Your task to perform on an android device: Search for pizza restaurants on Maps Image 0: 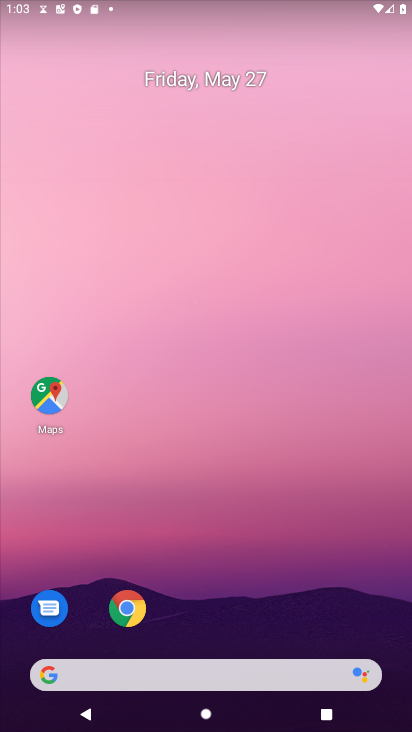
Step 0: click (44, 376)
Your task to perform on an android device: Search for pizza restaurants on Maps Image 1: 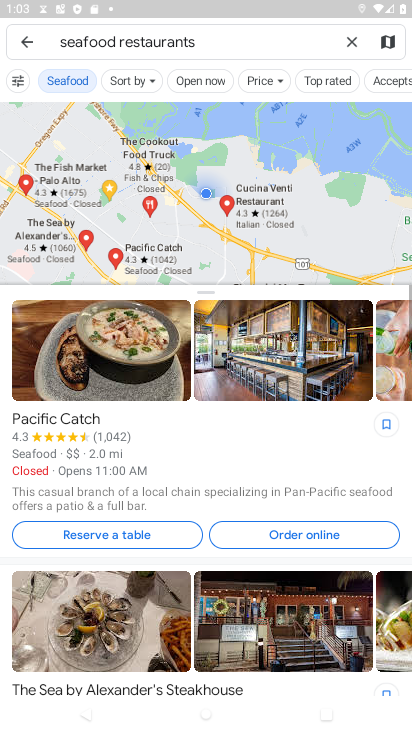
Step 1: click (347, 44)
Your task to perform on an android device: Search for pizza restaurants on Maps Image 2: 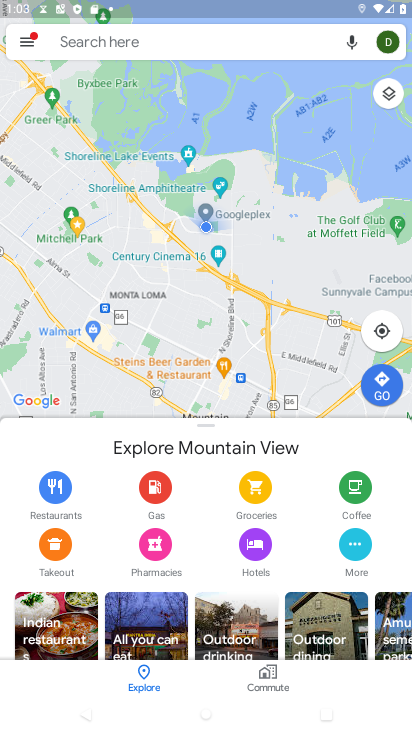
Step 2: click (125, 35)
Your task to perform on an android device: Search for pizza restaurants on Maps Image 3: 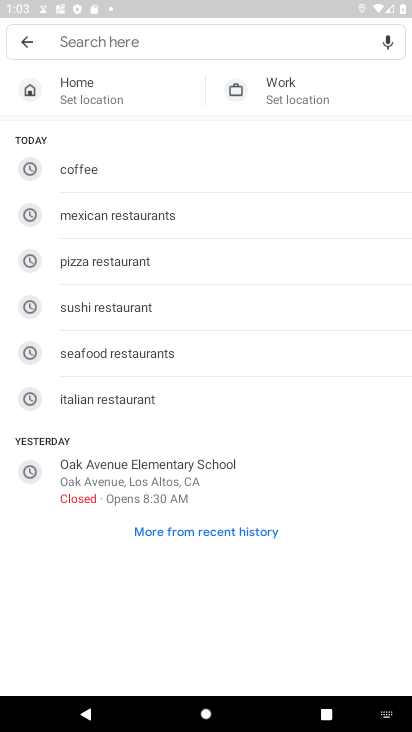
Step 3: click (105, 257)
Your task to perform on an android device: Search for pizza restaurants on Maps Image 4: 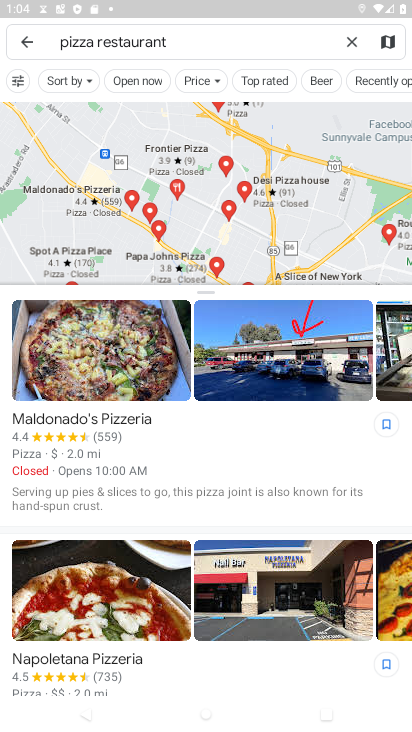
Step 4: task complete